Your task to perform on an android device: What's on my calendar today? Image 0: 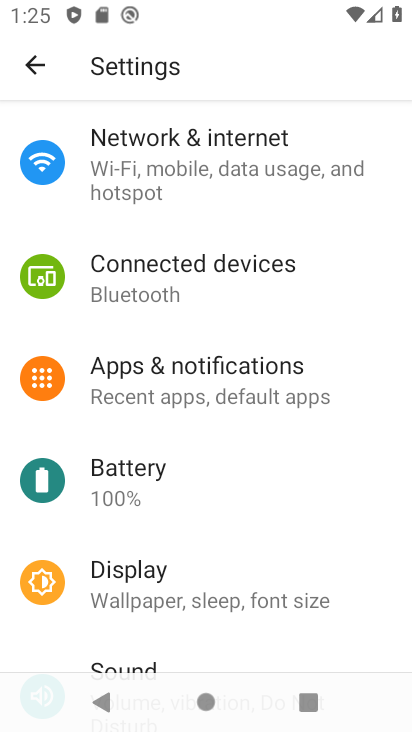
Step 0: press home button
Your task to perform on an android device: What's on my calendar today? Image 1: 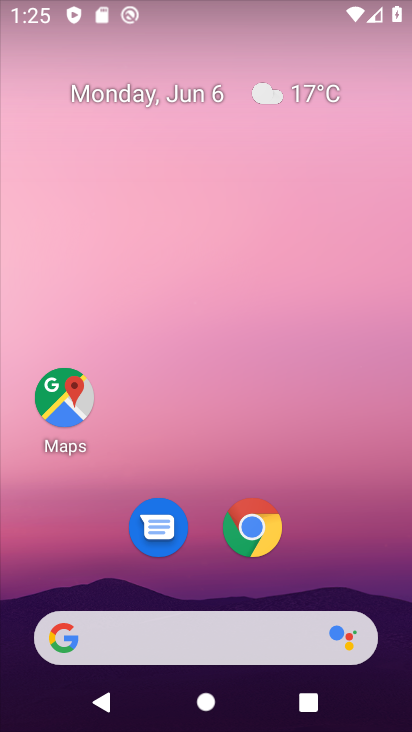
Step 1: drag from (228, 727) to (185, 35)
Your task to perform on an android device: What's on my calendar today? Image 2: 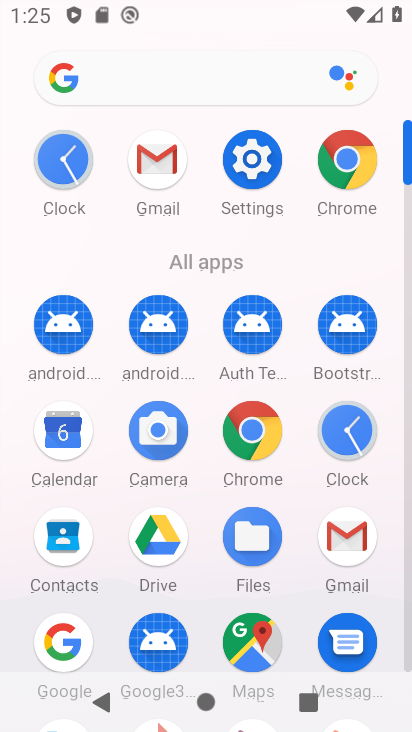
Step 2: click (67, 447)
Your task to perform on an android device: What's on my calendar today? Image 3: 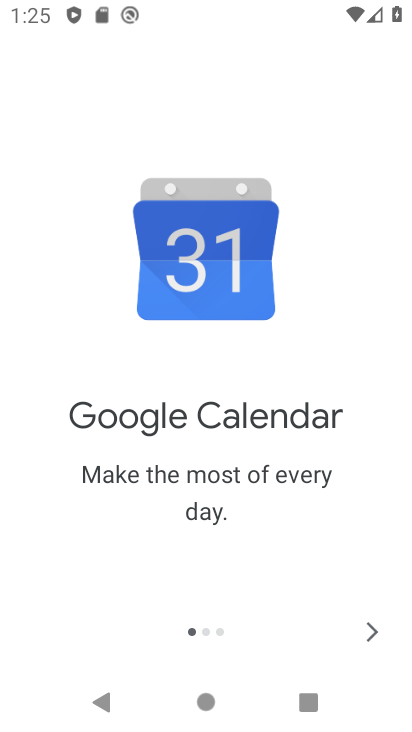
Step 3: click (374, 619)
Your task to perform on an android device: What's on my calendar today? Image 4: 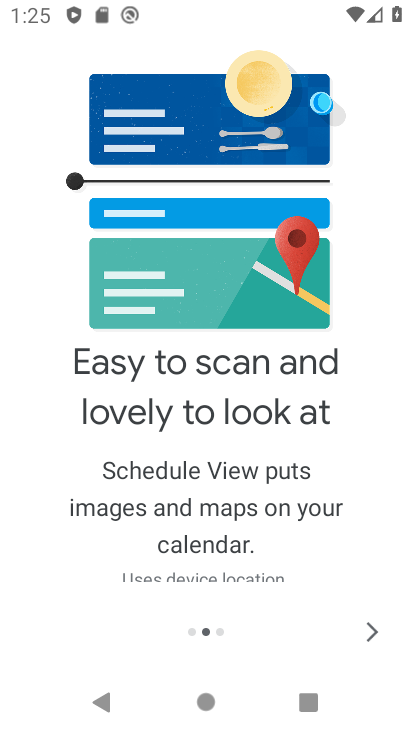
Step 4: click (373, 629)
Your task to perform on an android device: What's on my calendar today? Image 5: 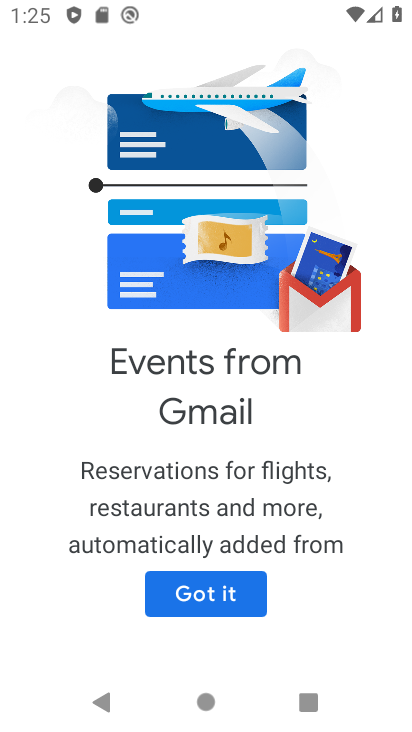
Step 5: click (210, 593)
Your task to perform on an android device: What's on my calendar today? Image 6: 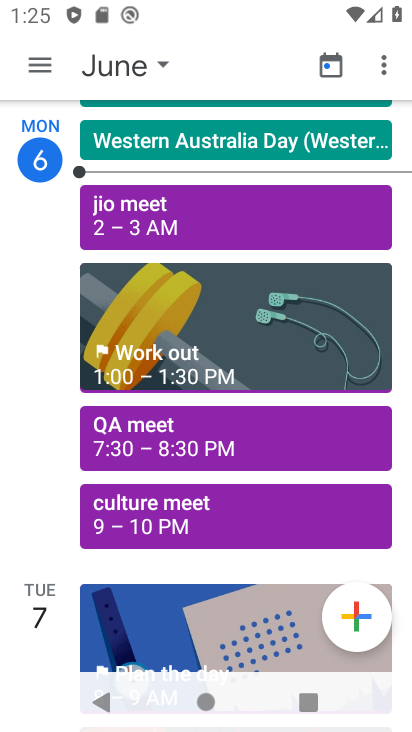
Step 6: click (150, 63)
Your task to perform on an android device: What's on my calendar today? Image 7: 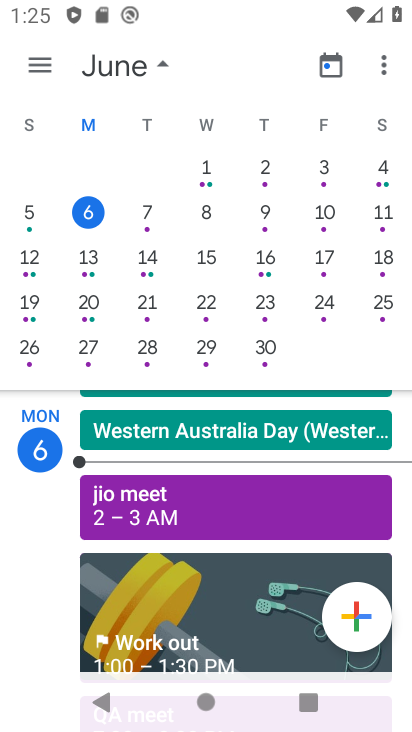
Step 7: click (79, 208)
Your task to perform on an android device: What's on my calendar today? Image 8: 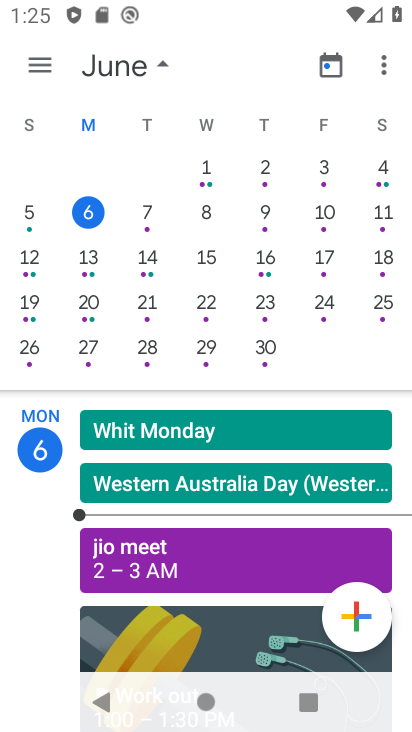
Step 8: click (172, 57)
Your task to perform on an android device: What's on my calendar today? Image 9: 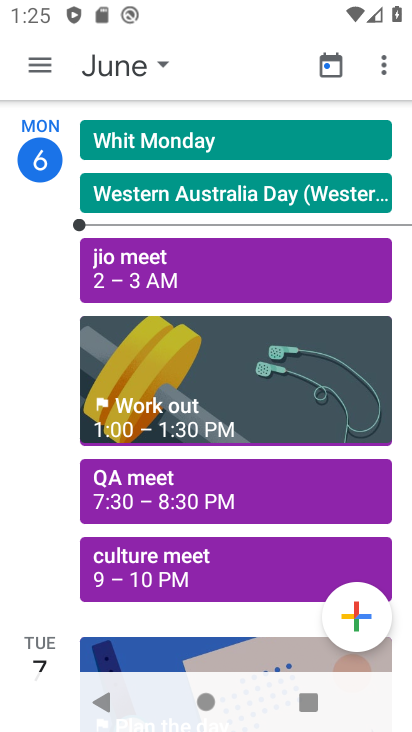
Step 9: task complete